Your task to perform on an android device: turn off smart reply in the gmail app Image 0: 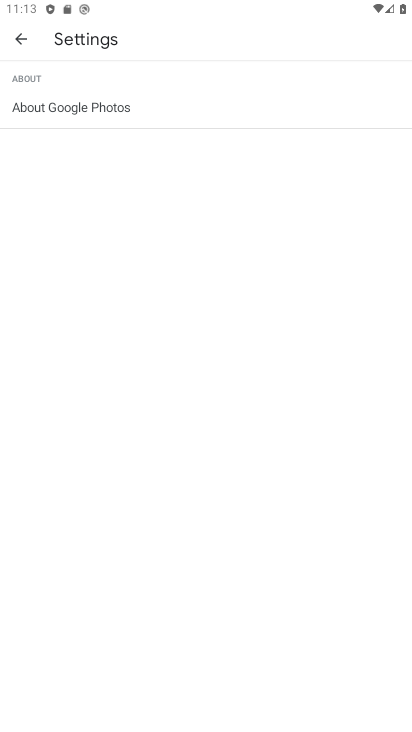
Step 0: press home button
Your task to perform on an android device: turn off smart reply in the gmail app Image 1: 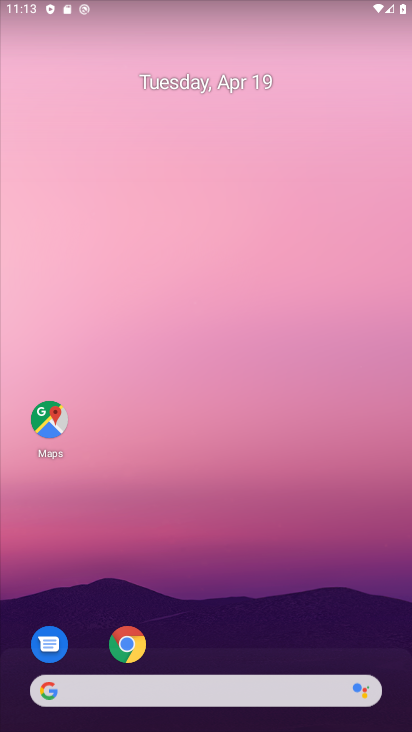
Step 1: drag from (195, 722) to (188, 191)
Your task to perform on an android device: turn off smart reply in the gmail app Image 2: 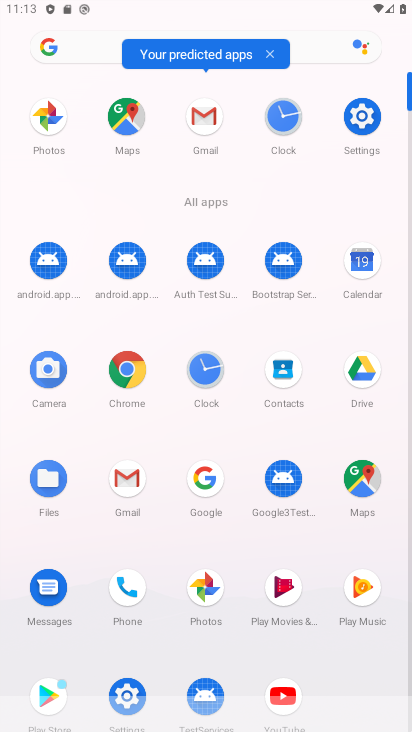
Step 2: click (125, 476)
Your task to perform on an android device: turn off smart reply in the gmail app Image 3: 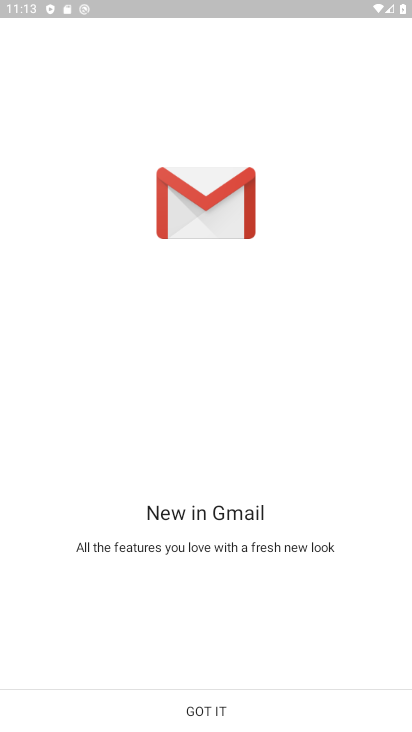
Step 3: click (209, 698)
Your task to perform on an android device: turn off smart reply in the gmail app Image 4: 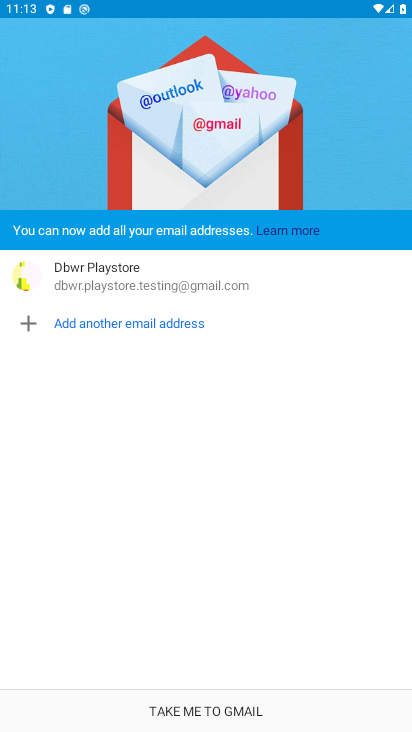
Step 4: click (211, 703)
Your task to perform on an android device: turn off smart reply in the gmail app Image 5: 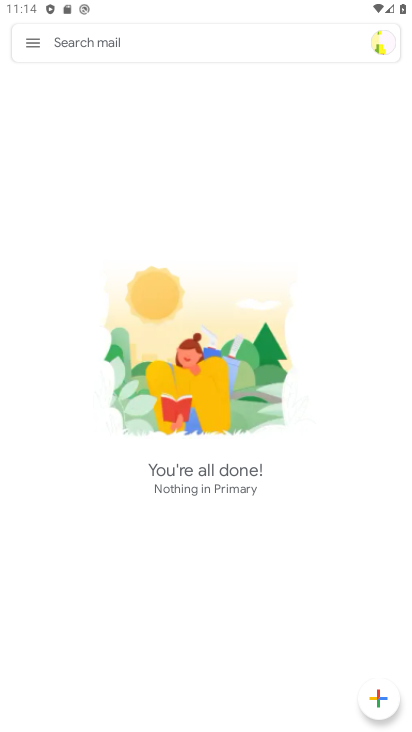
Step 5: click (33, 40)
Your task to perform on an android device: turn off smart reply in the gmail app Image 6: 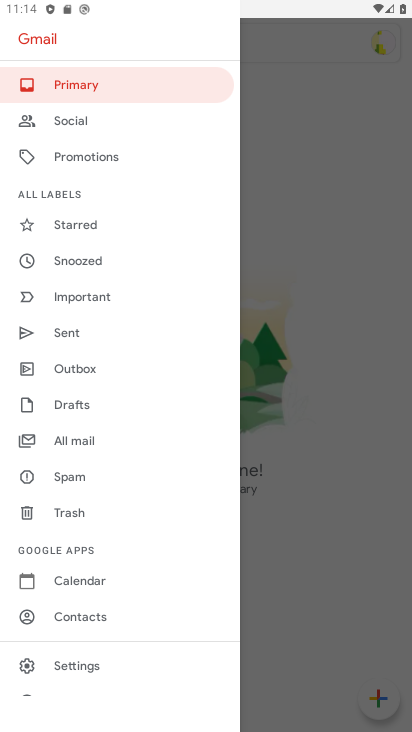
Step 6: click (100, 665)
Your task to perform on an android device: turn off smart reply in the gmail app Image 7: 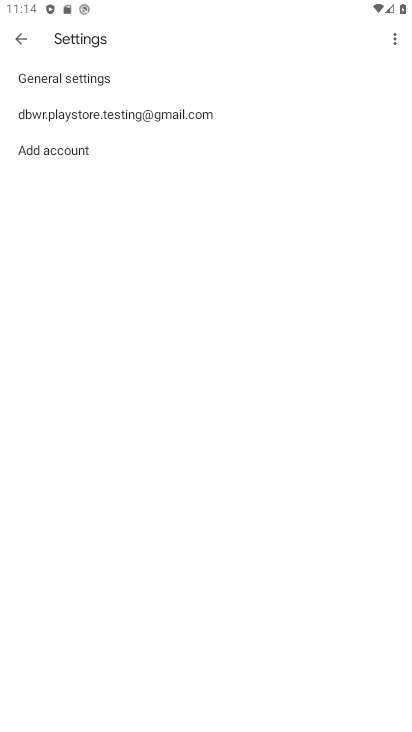
Step 7: click (183, 112)
Your task to perform on an android device: turn off smart reply in the gmail app Image 8: 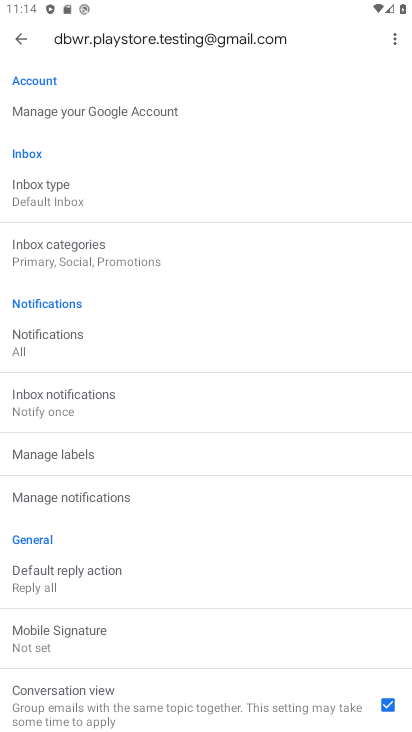
Step 8: drag from (131, 655) to (154, 170)
Your task to perform on an android device: turn off smart reply in the gmail app Image 9: 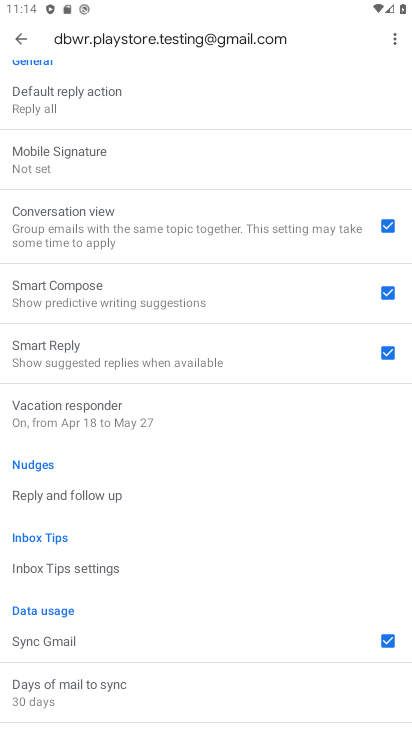
Step 9: click (390, 354)
Your task to perform on an android device: turn off smart reply in the gmail app Image 10: 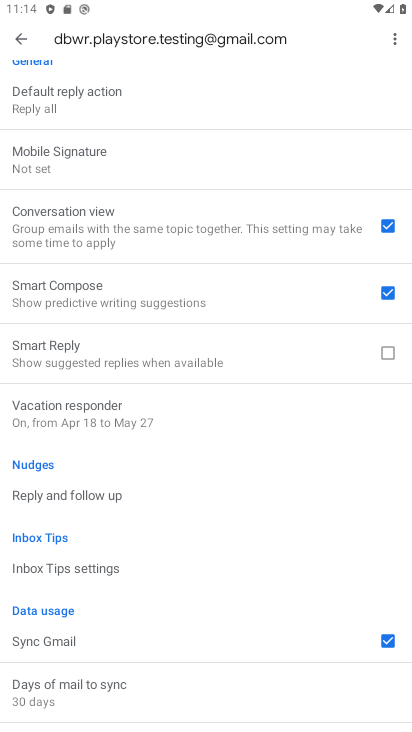
Step 10: task complete